Your task to perform on an android device: add a contact Image 0: 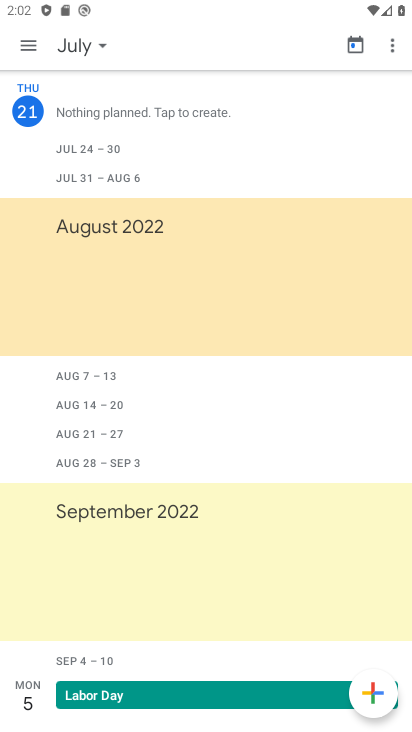
Step 0: press home button
Your task to perform on an android device: add a contact Image 1: 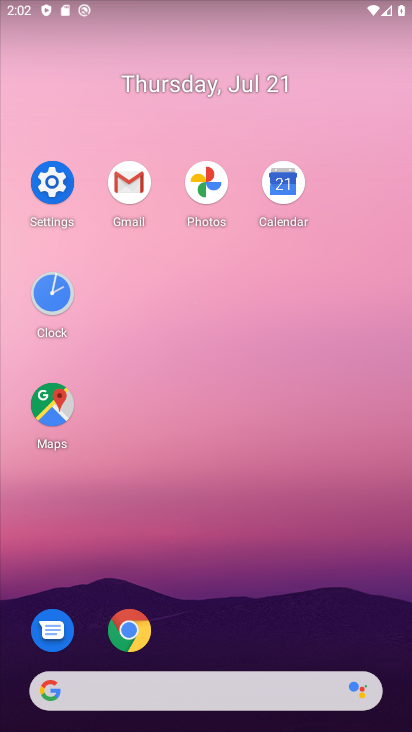
Step 1: drag from (216, 628) to (279, 246)
Your task to perform on an android device: add a contact Image 2: 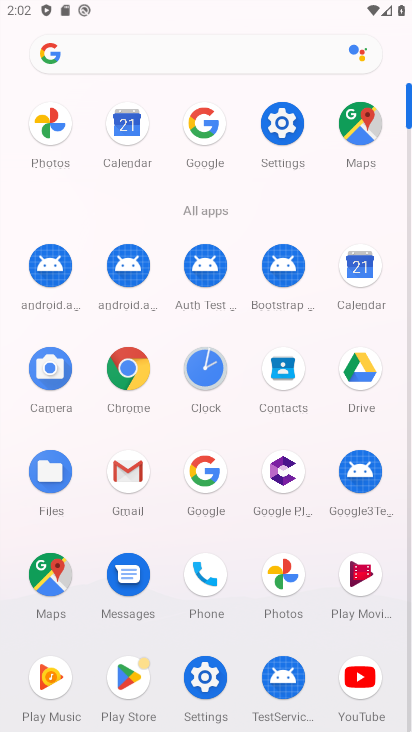
Step 2: click (283, 376)
Your task to perform on an android device: add a contact Image 3: 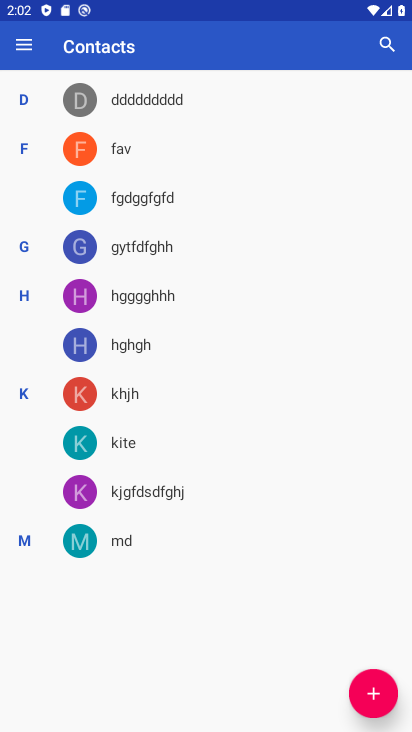
Step 3: click (364, 686)
Your task to perform on an android device: add a contact Image 4: 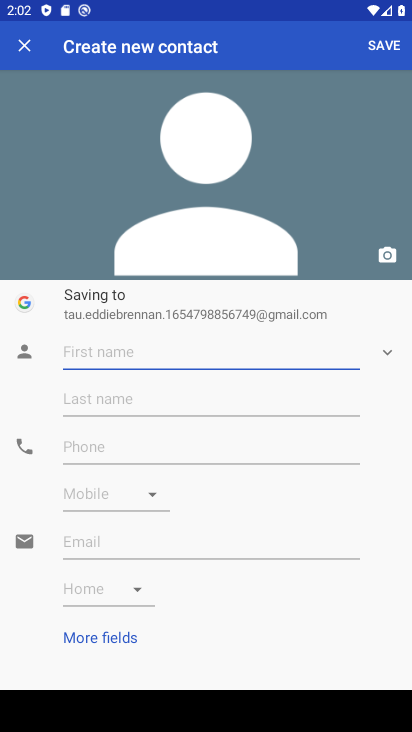
Step 4: type "utut"
Your task to perform on an android device: add a contact Image 5: 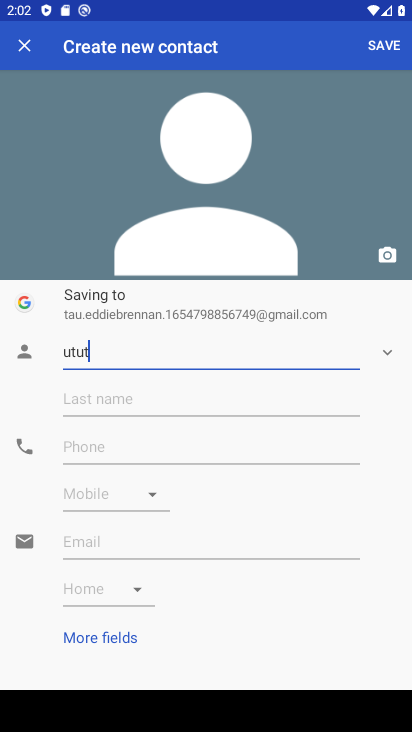
Step 5: click (80, 437)
Your task to perform on an android device: add a contact Image 6: 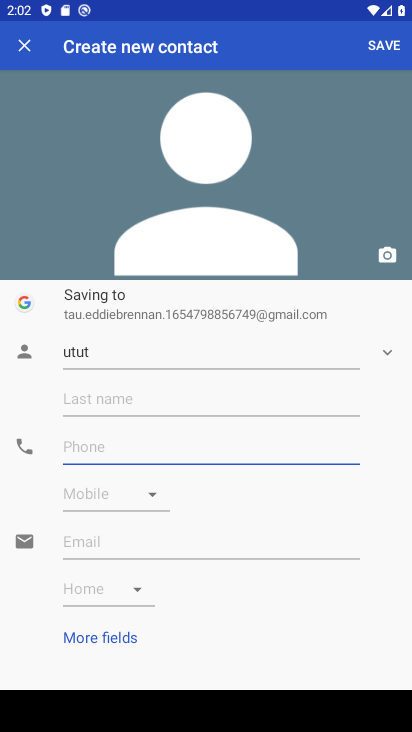
Step 6: type "9987677898"
Your task to perform on an android device: add a contact Image 7: 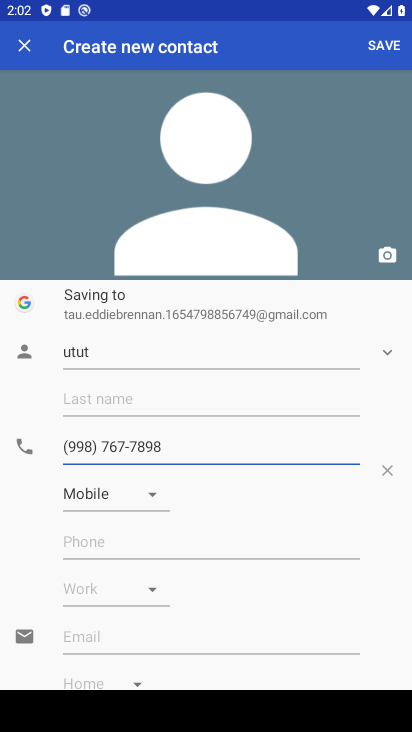
Step 7: click (389, 34)
Your task to perform on an android device: add a contact Image 8: 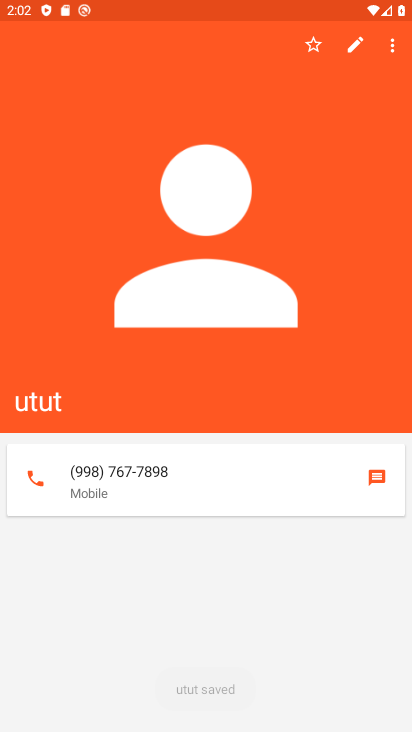
Step 8: task complete